Your task to perform on an android device: set an alarm Image 0: 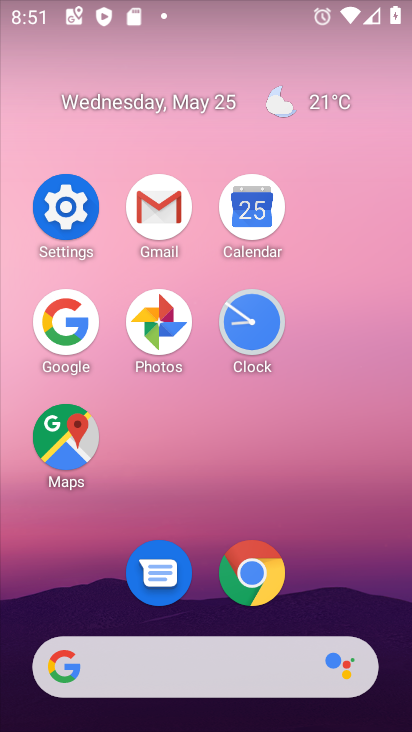
Step 0: click (267, 331)
Your task to perform on an android device: set an alarm Image 1: 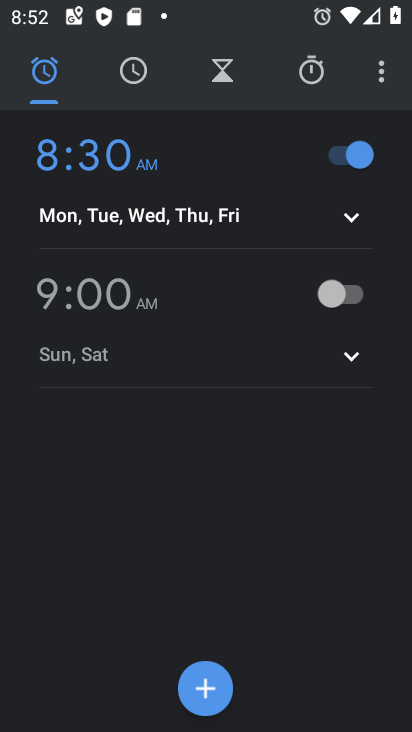
Step 1: click (355, 293)
Your task to perform on an android device: set an alarm Image 2: 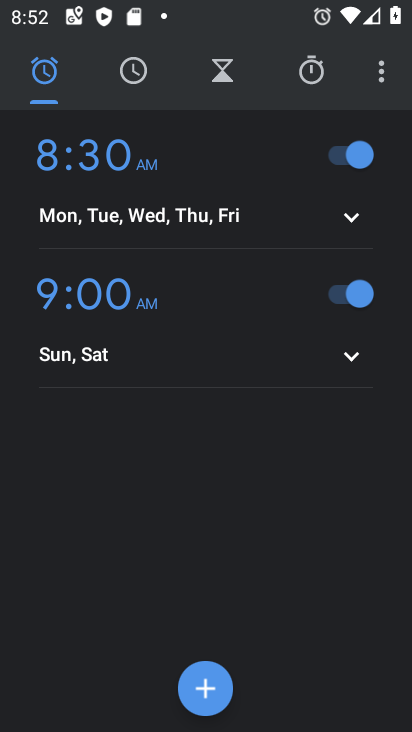
Step 2: task complete